Your task to perform on an android device: Open Android settings Image 0: 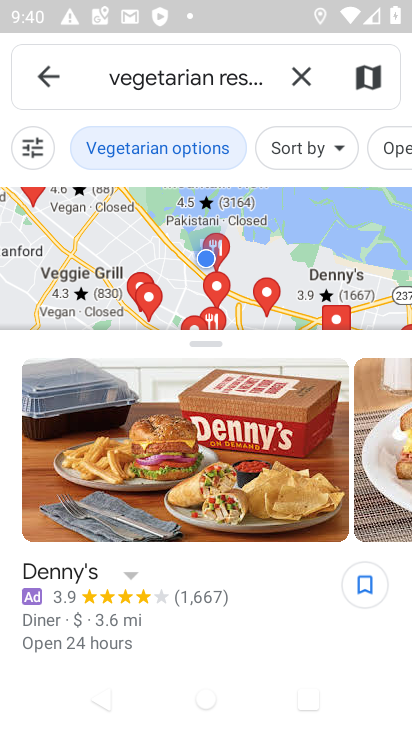
Step 0: press back button
Your task to perform on an android device: Open Android settings Image 1: 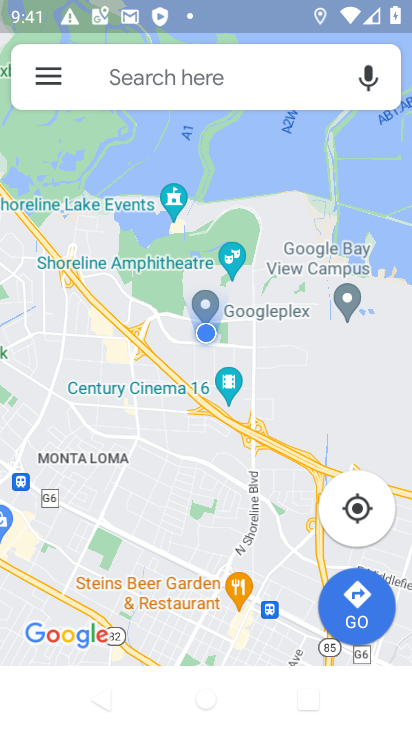
Step 1: press back button
Your task to perform on an android device: Open Android settings Image 2: 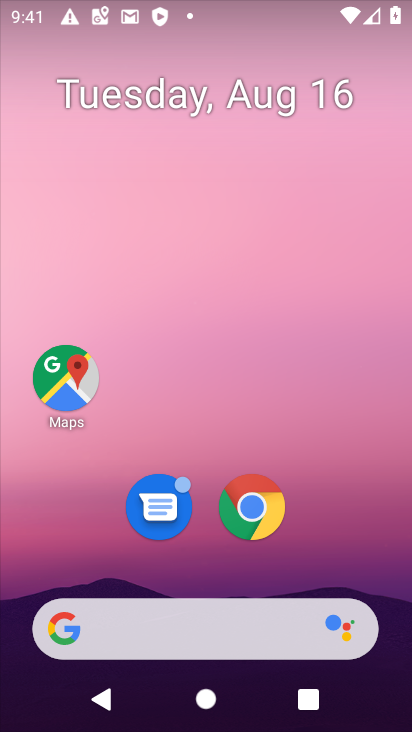
Step 2: drag from (185, 573) to (260, 41)
Your task to perform on an android device: Open Android settings Image 3: 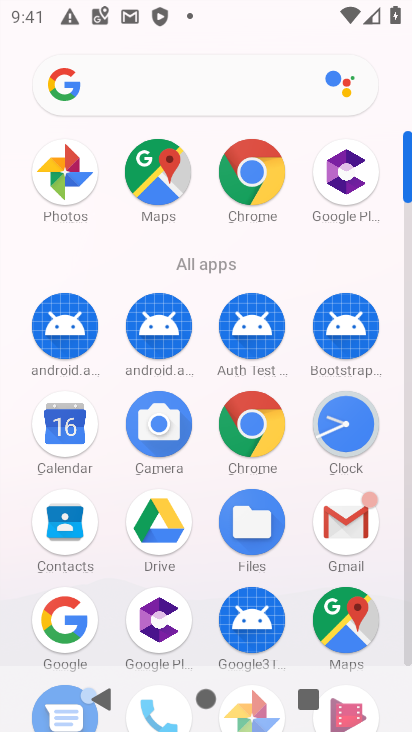
Step 3: drag from (190, 554) to (240, 125)
Your task to perform on an android device: Open Android settings Image 4: 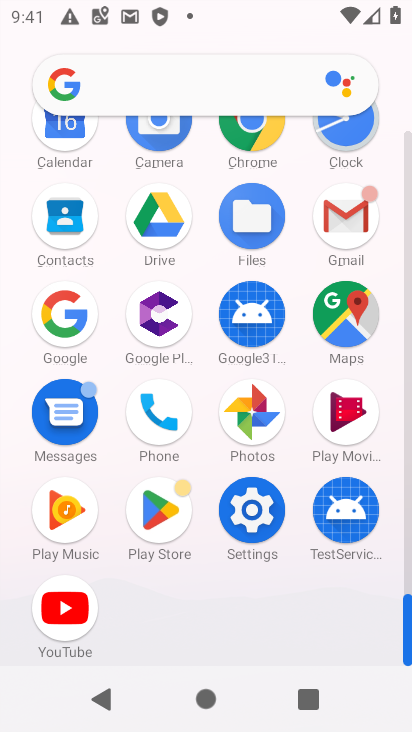
Step 4: click (263, 515)
Your task to perform on an android device: Open Android settings Image 5: 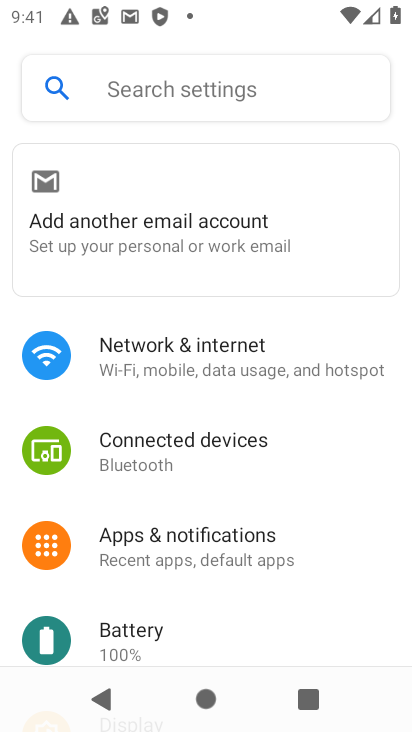
Step 5: drag from (180, 628) to (331, 12)
Your task to perform on an android device: Open Android settings Image 6: 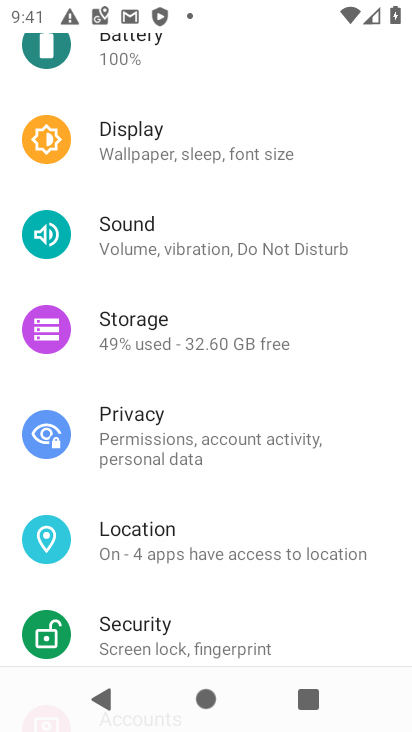
Step 6: drag from (189, 568) to (274, 148)
Your task to perform on an android device: Open Android settings Image 7: 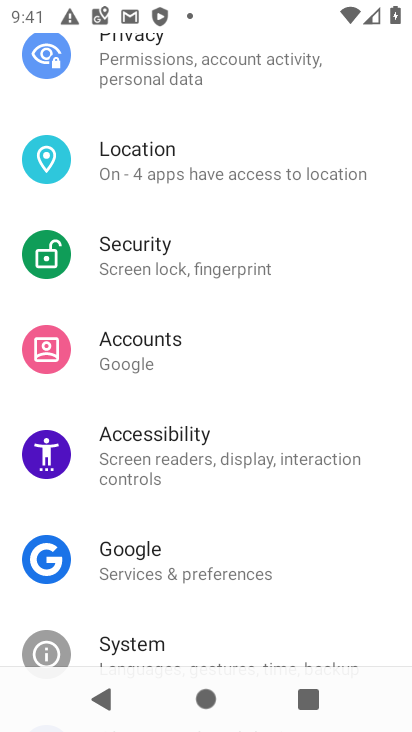
Step 7: drag from (179, 612) to (391, 1)
Your task to perform on an android device: Open Android settings Image 8: 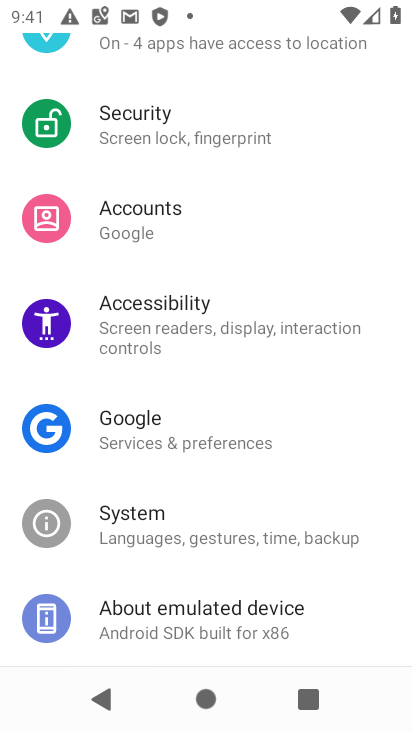
Step 8: click (246, 616)
Your task to perform on an android device: Open Android settings Image 9: 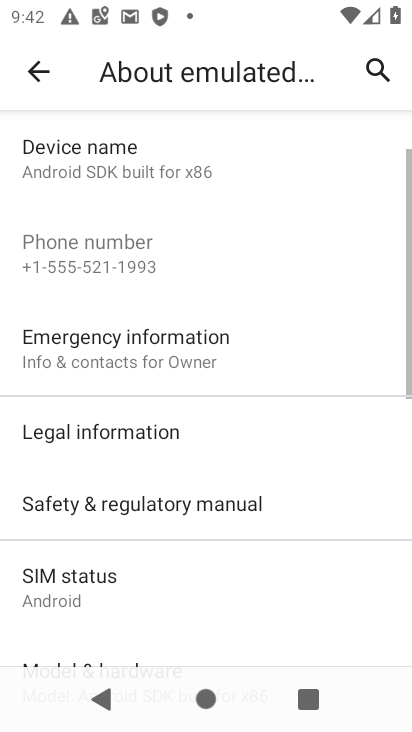
Step 9: task complete